Your task to perform on an android device: Go to network settings Image 0: 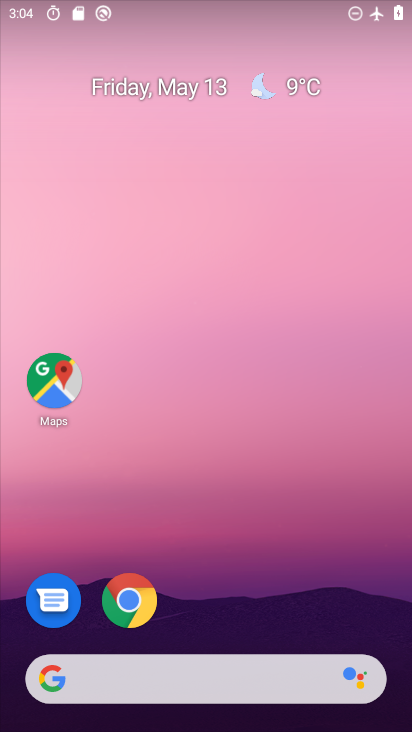
Step 0: drag from (217, 635) to (271, 260)
Your task to perform on an android device: Go to network settings Image 1: 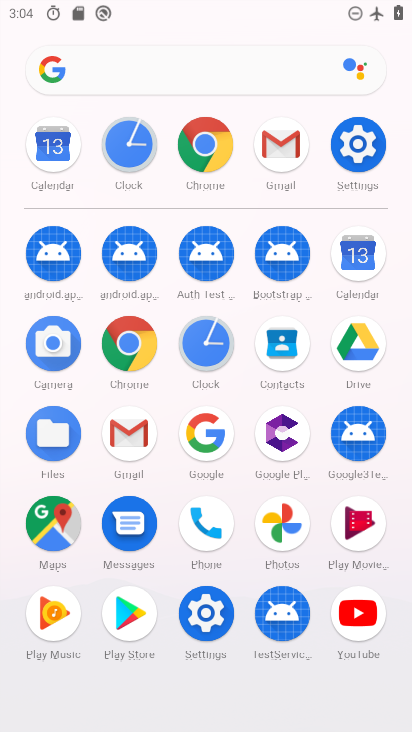
Step 1: click (361, 146)
Your task to perform on an android device: Go to network settings Image 2: 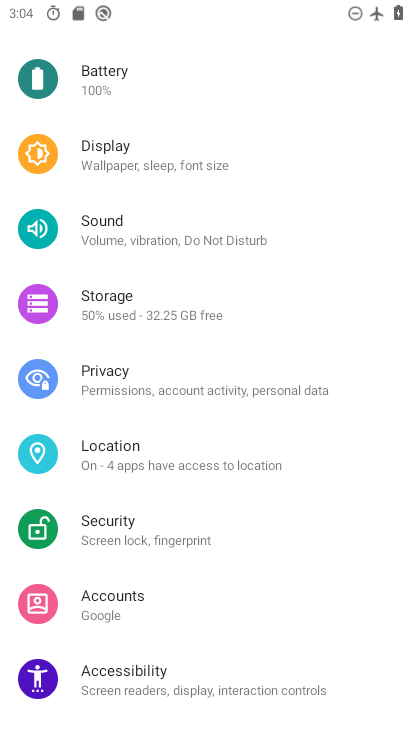
Step 2: drag from (172, 147) to (254, 725)
Your task to perform on an android device: Go to network settings Image 3: 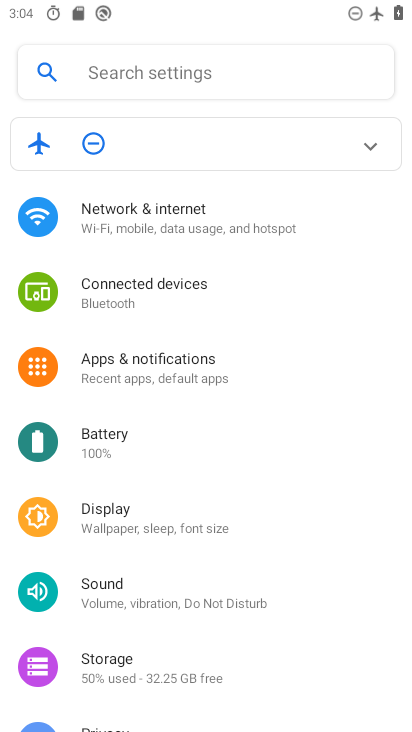
Step 3: click (168, 218)
Your task to perform on an android device: Go to network settings Image 4: 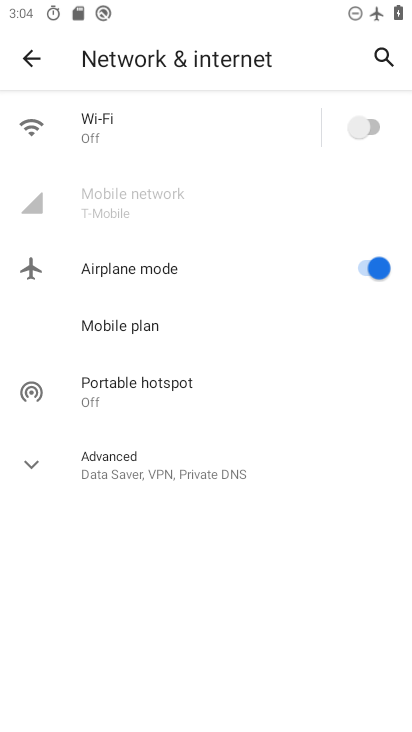
Step 4: task complete